Your task to perform on an android device: Open Youtube and go to "Your channel" Image 0: 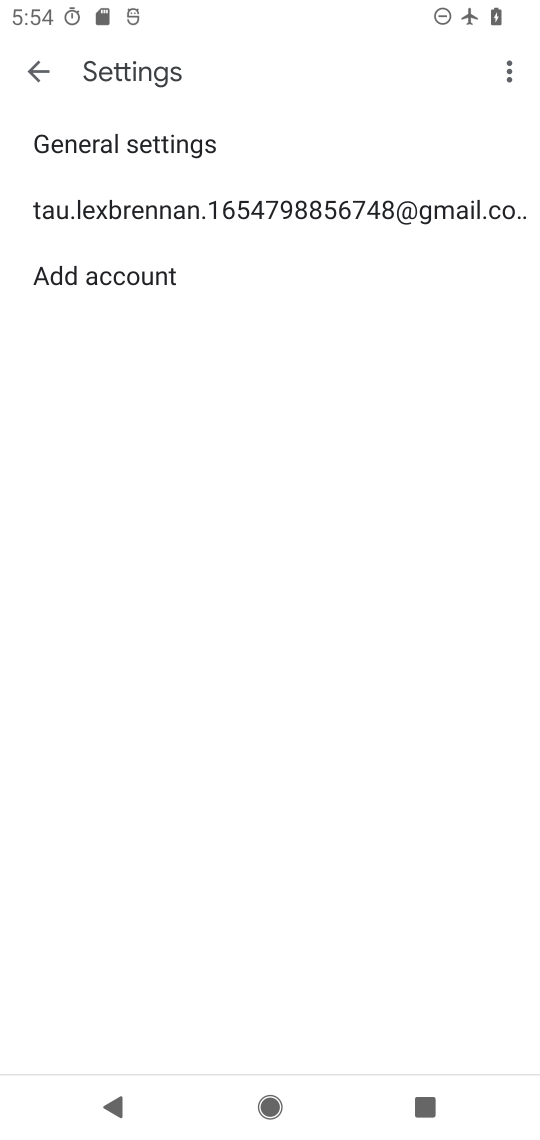
Step 0: press home button
Your task to perform on an android device: Open Youtube and go to "Your channel" Image 1: 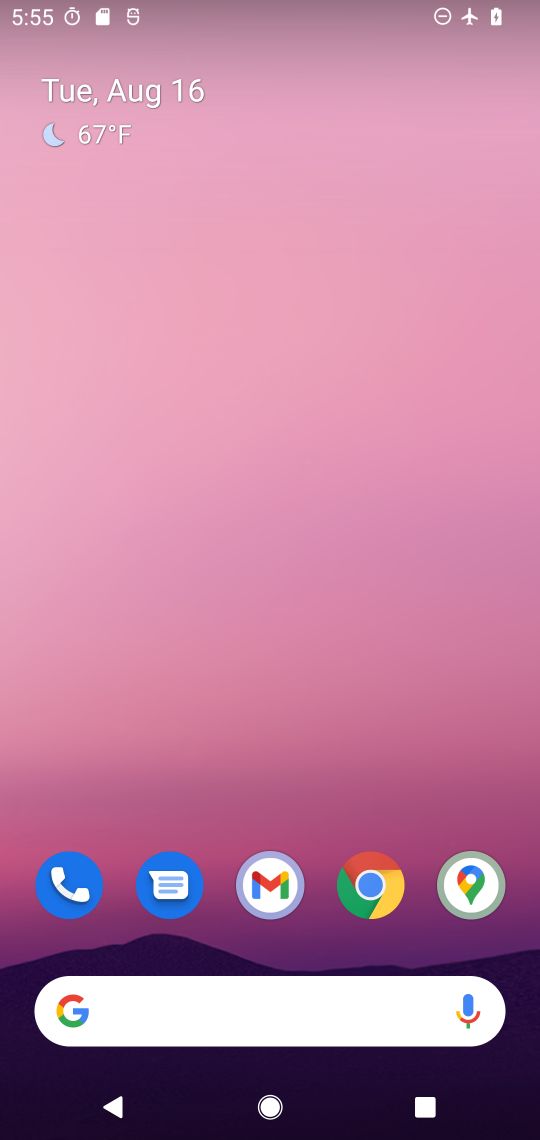
Step 1: drag from (279, 697) to (245, 148)
Your task to perform on an android device: Open Youtube and go to "Your channel" Image 2: 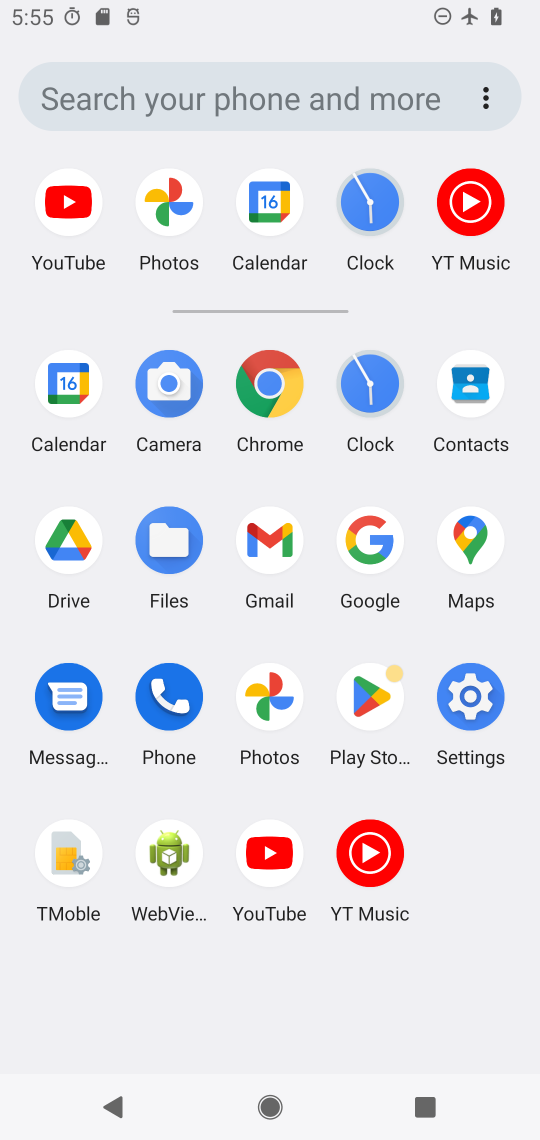
Step 2: click (275, 843)
Your task to perform on an android device: Open Youtube and go to "Your channel" Image 3: 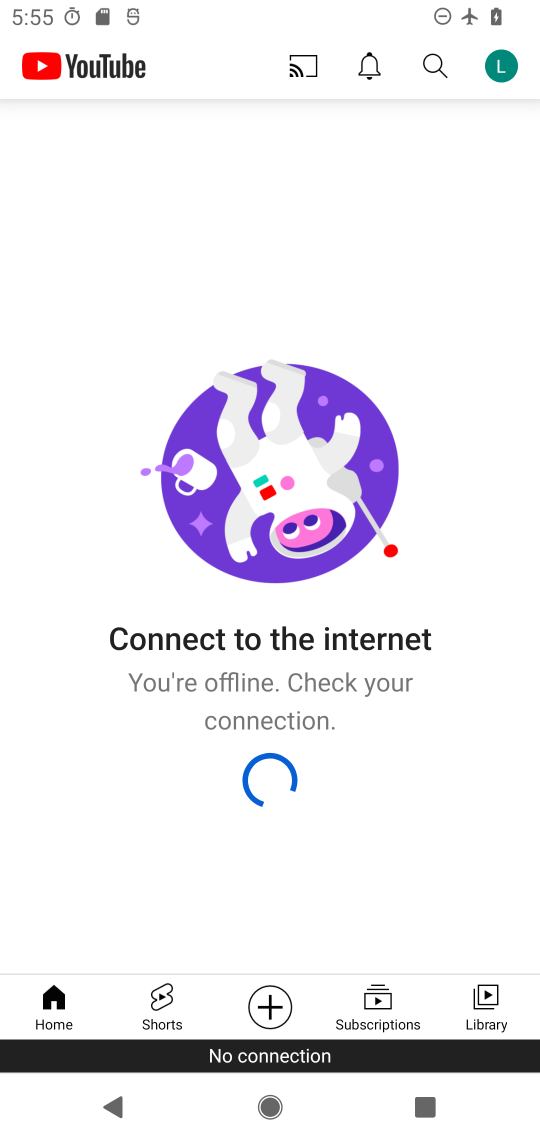
Step 3: click (428, 48)
Your task to perform on an android device: Open Youtube and go to "Your channel" Image 4: 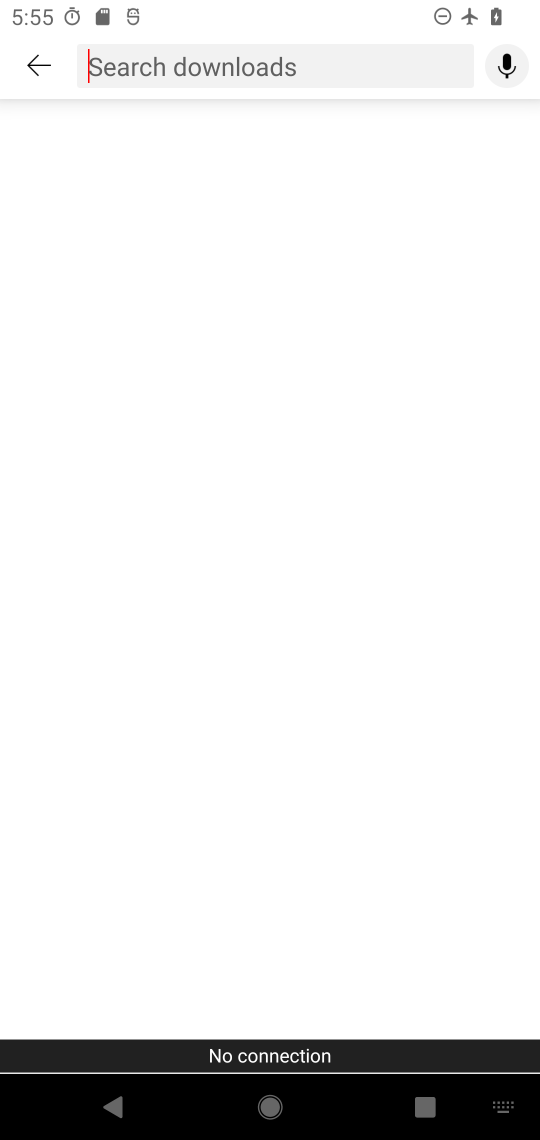
Step 4: click (216, 60)
Your task to perform on an android device: Open Youtube and go to "Your channel" Image 5: 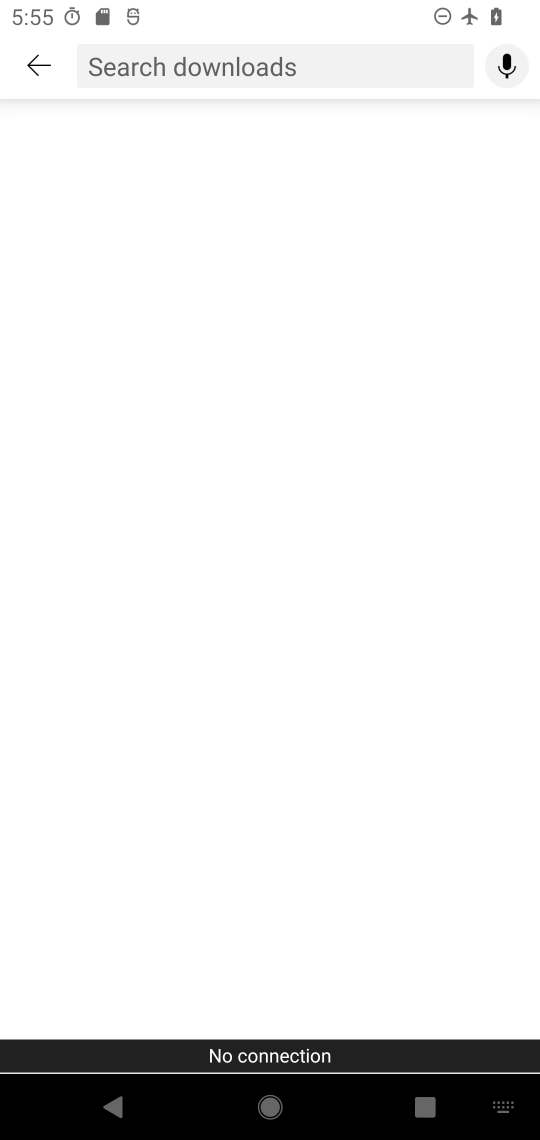
Step 5: type "juice "
Your task to perform on an android device: Open Youtube and go to "Your channel" Image 6: 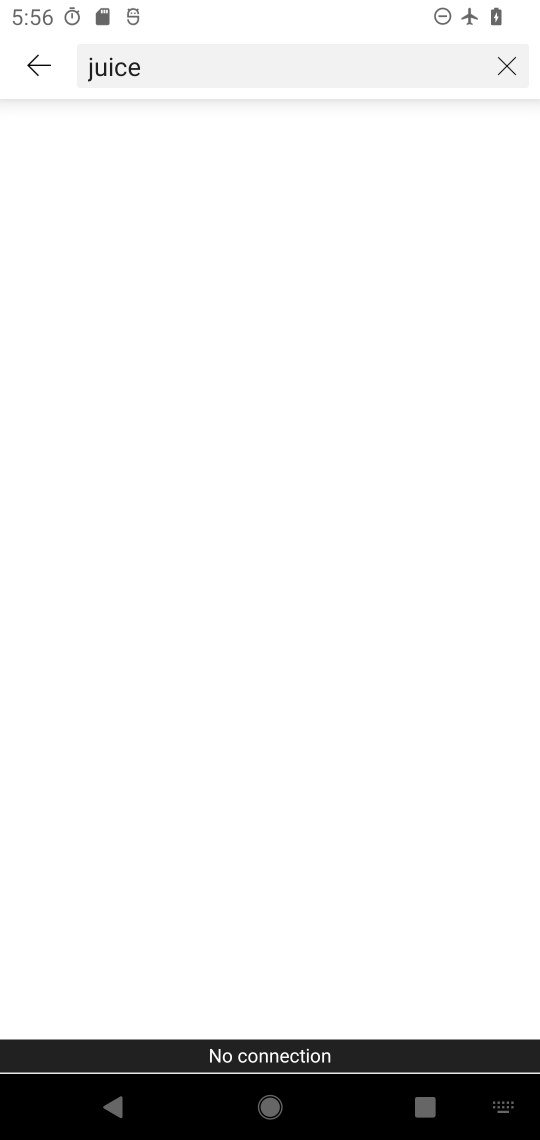
Step 6: task complete